Your task to perform on an android device: Search for Mexican restaurants on Maps Image 0: 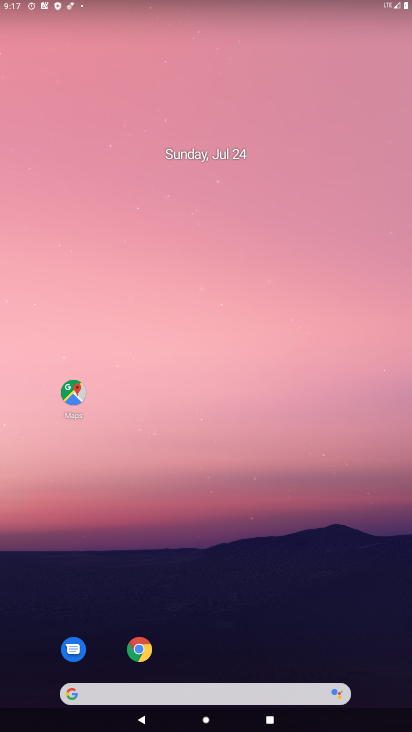
Step 0: click (69, 405)
Your task to perform on an android device: Search for Mexican restaurants on Maps Image 1: 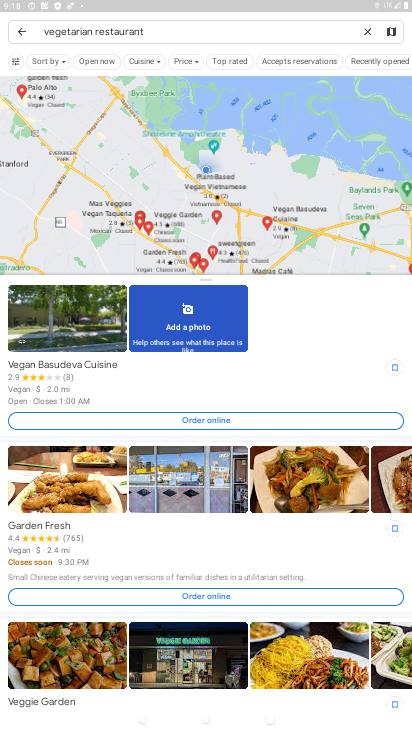
Step 1: click (23, 30)
Your task to perform on an android device: Search for Mexican restaurants on Maps Image 2: 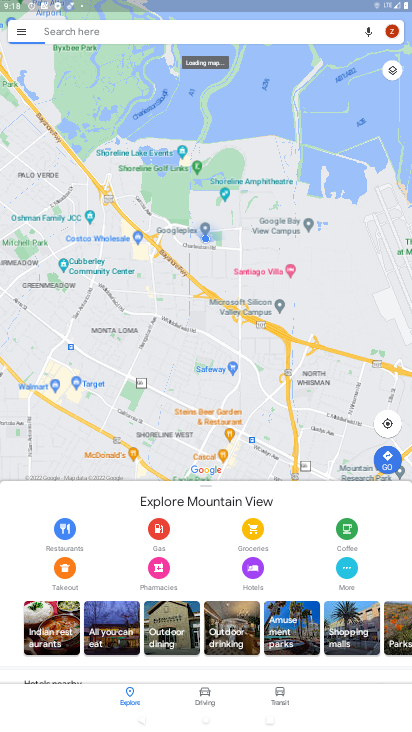
Step 2: click (70, 29)
Your task to perform on an android device: Search for Mexican restaurants on Maps Image 3: 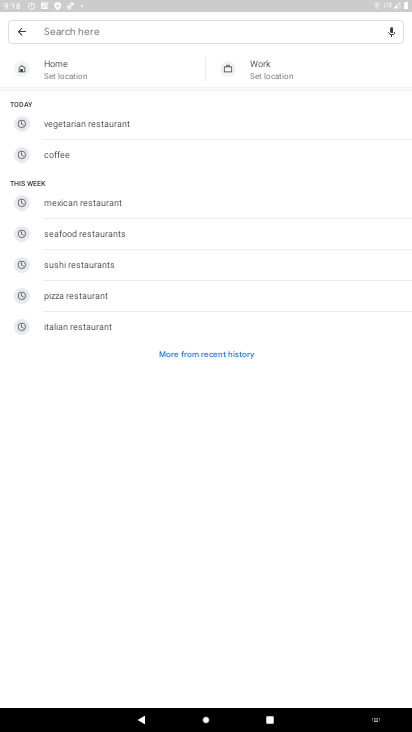
Step 3: click (103, 199)
Your task to perform on an android device: Search for Mexican restaurants on Maps Image 4: 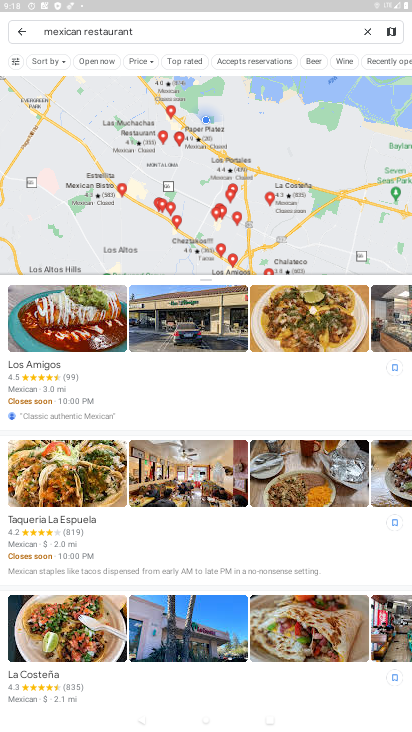
Step 4: task complete